Your task to perform on an android device: Open Maps and search for coffee Image 0: 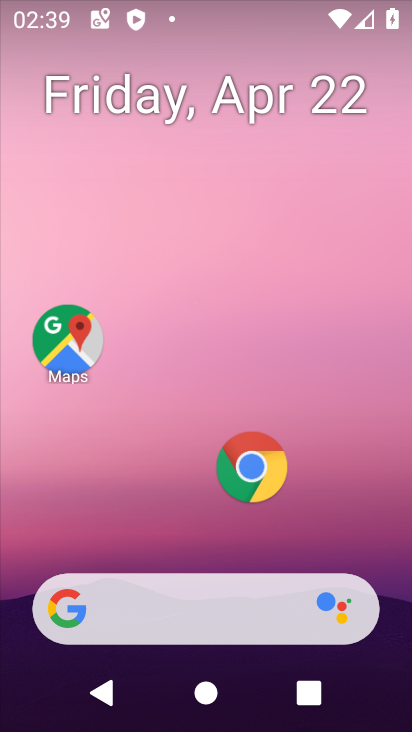
Step 0: click (69, 342)
Your task to perform on an android device: Open Maps and search for coffee Image 1: 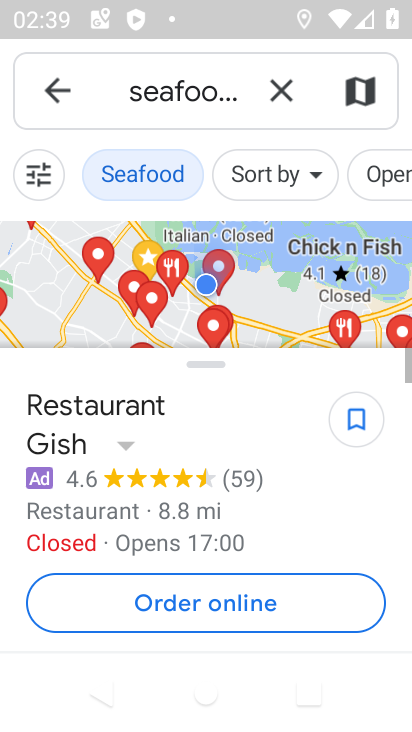
Step 1: click (291, 79)
Your task to perform on an android device: Open Maps and search for coffee Image 2: 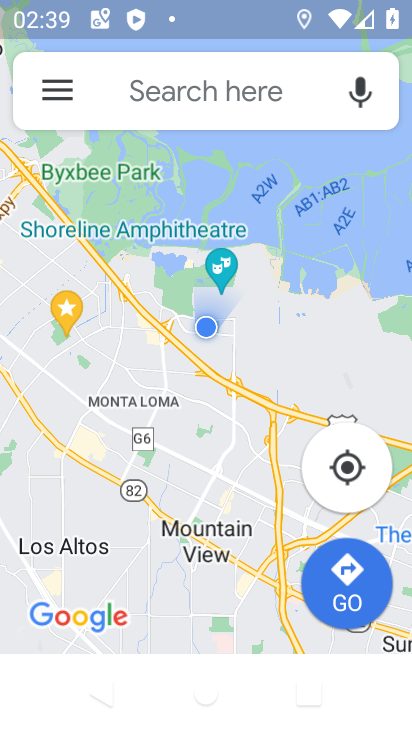
Step 2: type "coffee"
Your task to perform on an android device: Open Maps and search for coffee Image 3: 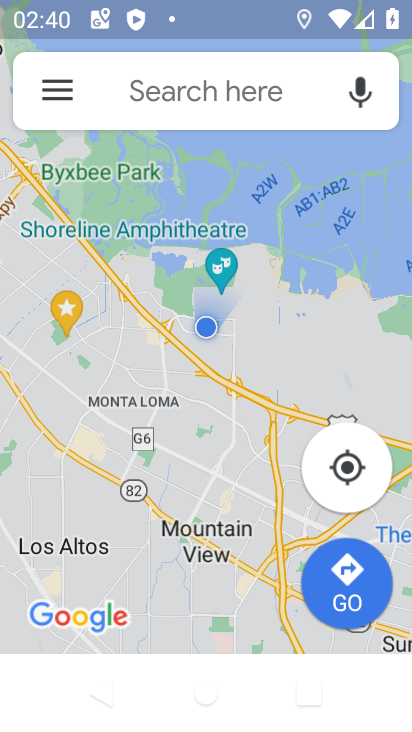
Step 3: click (152, 76)
Your task to perform on an android device: Open Maps and search for coffee Image 4: 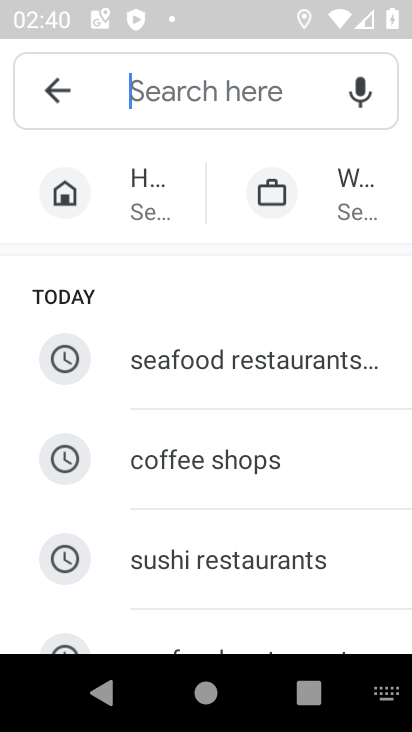
Step 4: type "coffee"
Your task to perform on an android device: Open Maps and search for coffee Image 5: 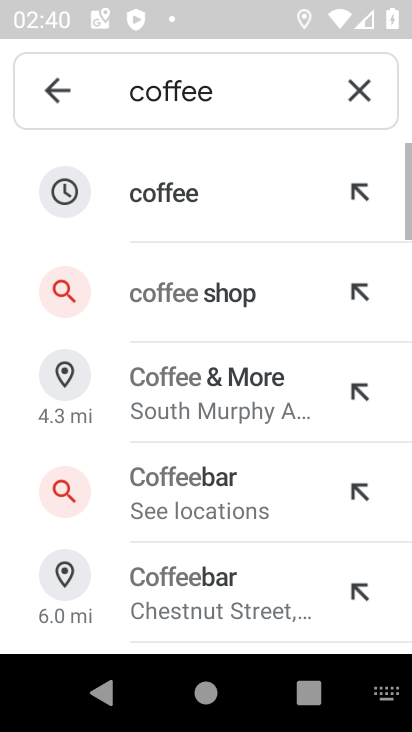
Step 5: click (205, 207)
Your task to perform on an android device: Open Maps and search for coffee Image 6: 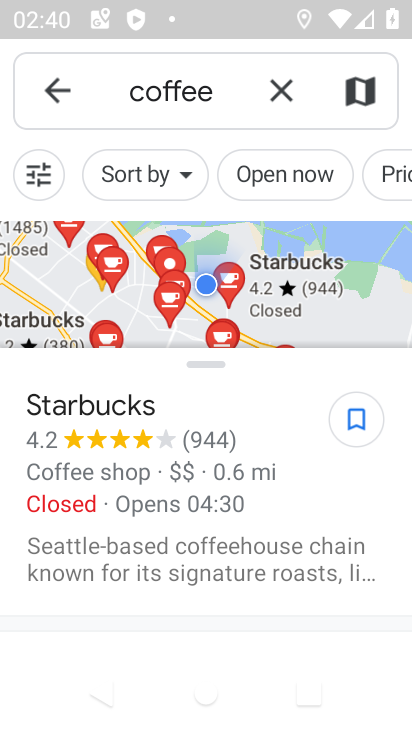
Step 6: task complete